Your task to perform on an android device: What's on my calendar tomorrow? Image 0: 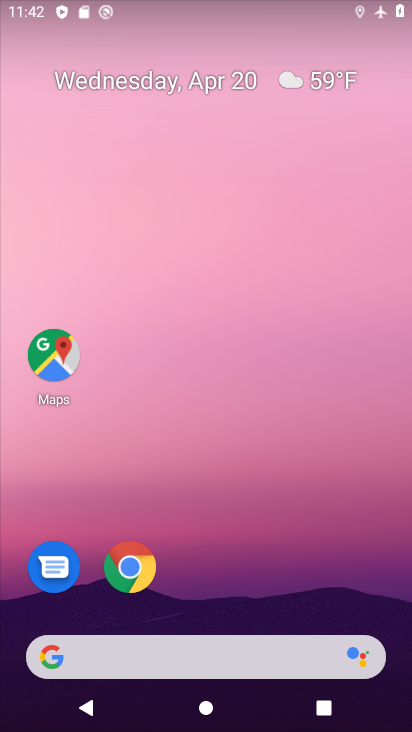
Step 0: drag from (240, 595) to (135, 40)
Your task to perform on an android device: What's on my calendar tomorrow? Image 1: 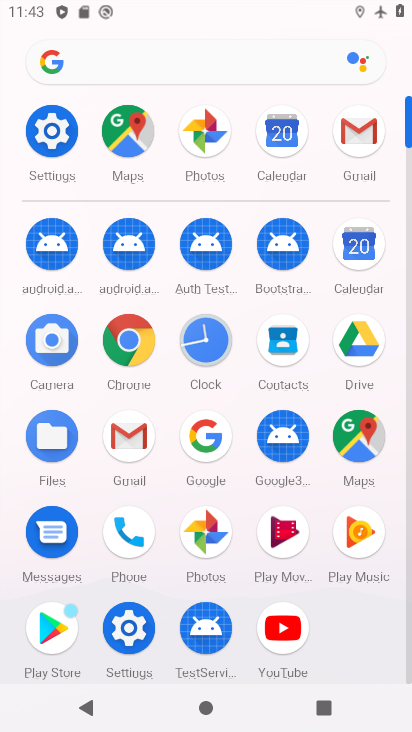
Step 1: click (355, 244)
Your task to perform on an android device: What's on my calendar tomorrow? Image 2: 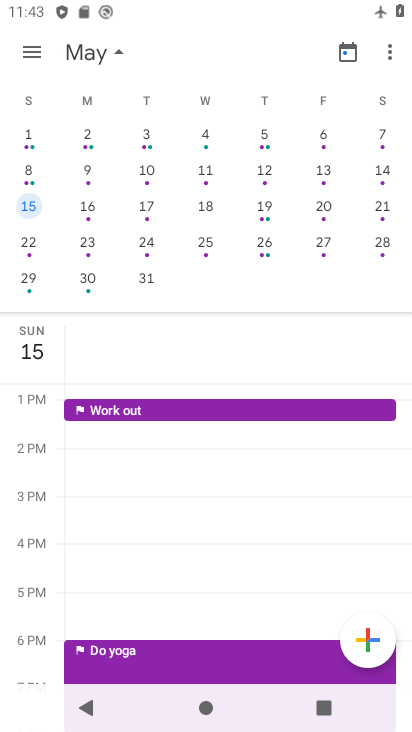
Step 2: drag from (51, 224) to (392, 167)
Your task to perform on an android device: What's on my calendar tomorrow? Image 3: 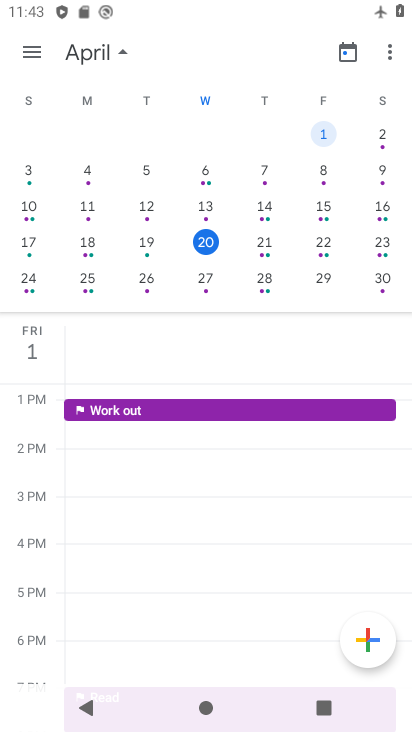
Step 3: click (270, 237)
Your task to perform on an android device: What's on my calendar tomorrow? Image 4: 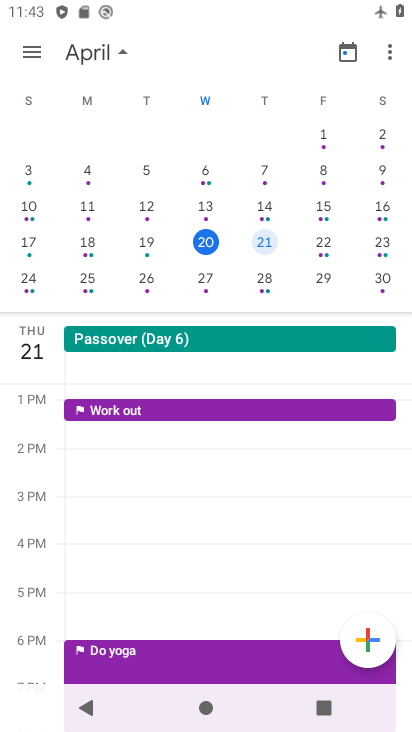
Step 4: task complete